Your task to perform on an android device: see creations saved in the google photos Image 0: 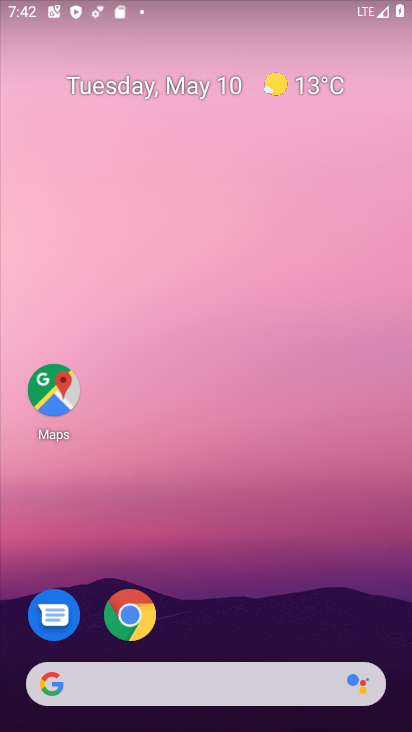
Step 0: drag from (316, 515) to (291, 66)
Your task to perform on an android device: see creations saved in the google photos Image 1: 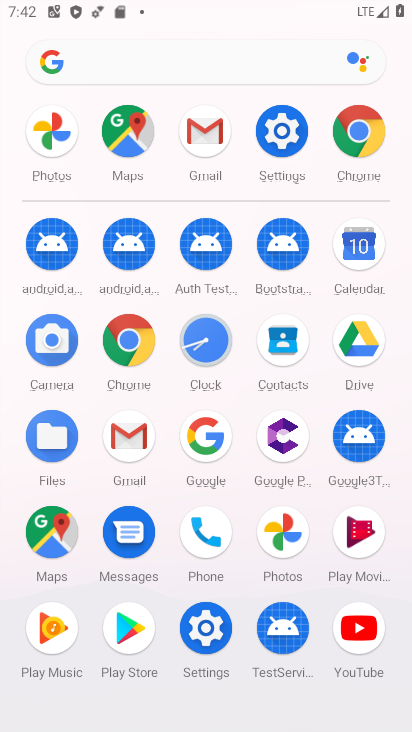
Step 1: click (292, 531)
Your task to perform on an android device: see creations saved in the google photos Image 2: 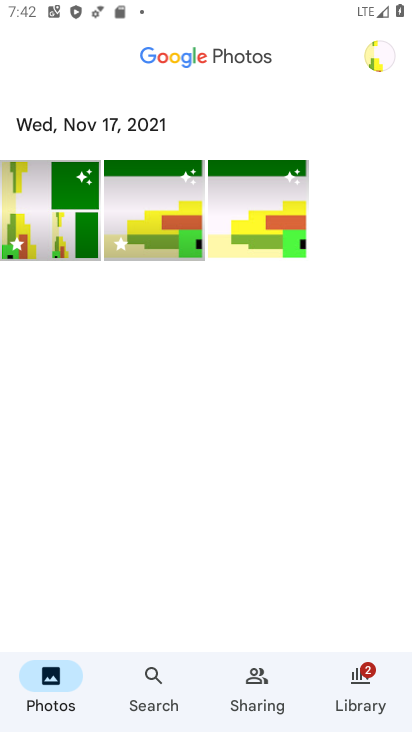
Step 2: task complete